Your task to perform on an android device: Search for bose soundsport free on target, select the first entry, and add it to the cart. Image 0: 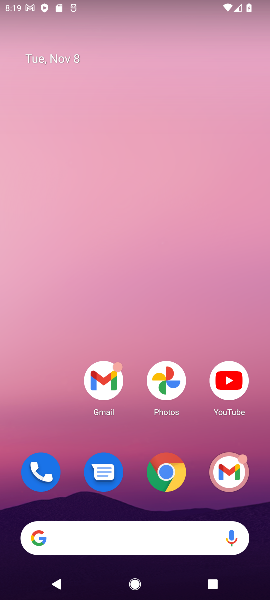
Step 0: click (174, 466)
Your task to perform on an android device: Search for bose soundsport free on target, select the first entry, and add it to the cart. Image 1: 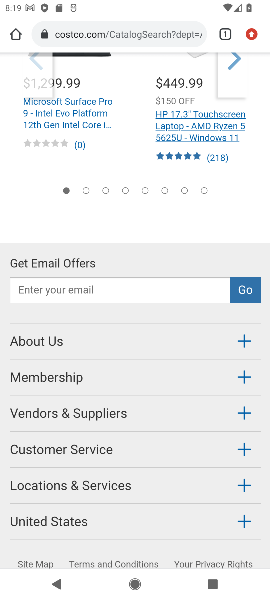
Step 1: click (119, 30)
Your task to perform on an android device: Search for bose soundsport free on target, select the first entry, and add it to the cart. Image 2: 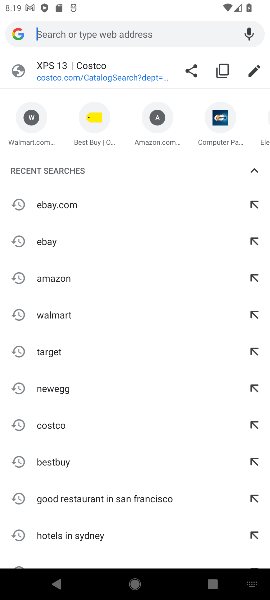
Step 2: type "target"
Your task to perform on an android device: Search for bose soundsport free on target, select the first entry, and add it to the cart. Image 3: 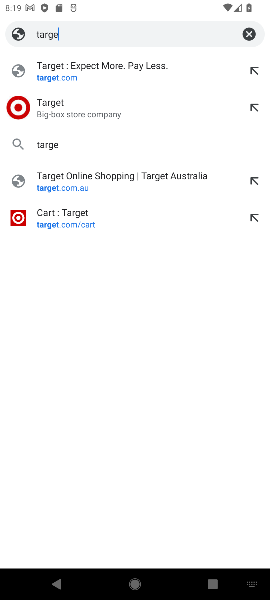
Step 3: press enter
Your task to perform on an android device: Search for bose soundsport free on target, select the first entry, and add it to the cart. Image 4: 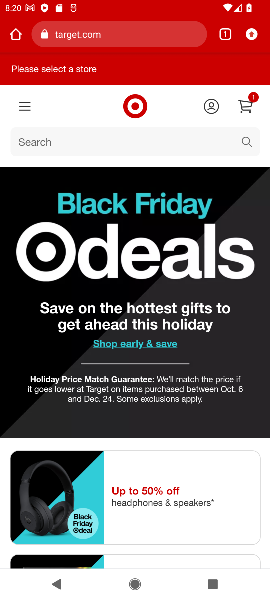
Step 4: click (107, 139)
Your task to perform on an android device: Search for bose soundsport free on target, select the first entry, and add it to the cart. Image 5: 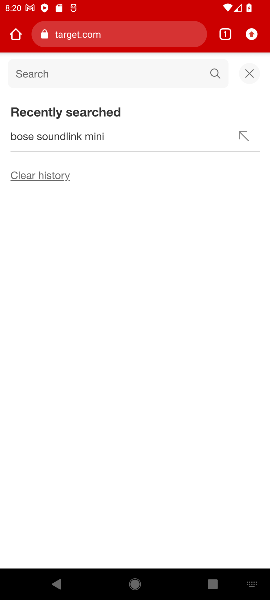
Step 5: type "bose soundsport"
Your task to perform on an android device: Search for bose soundsport free on target, select the first entry, and add it to the cart. Image 6: 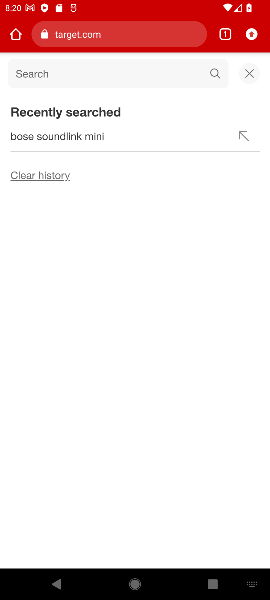
Step 6: press enter
Your task to perform on an android device: Search for bose soundsport free on target, select the first entry, and add it to the cart. Image 7: 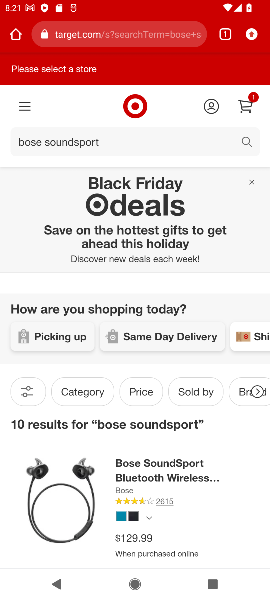
Step 7: drag from (81, 519) to (200, 346)
Your task to perform on an android device: Search for bose soundsport free on target, select the first entry, and add it to the cart. Image 8: 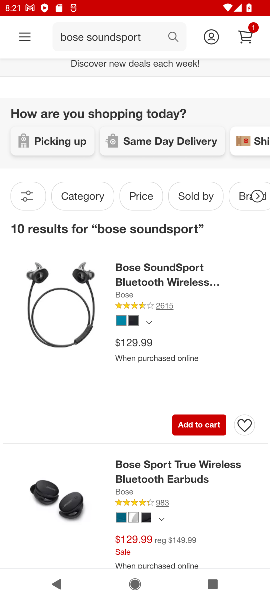
Step 8: click (202, 424)
Your task to perform on an android device: Search for bose soundsport free on target, select the first entry, and add it to the cart. Image 9: 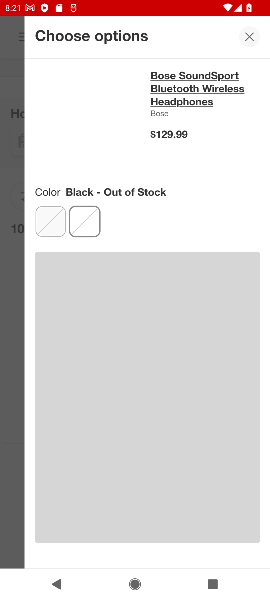
Step 9: task complete